Your task to perform on an android device: turn off location history Image 0: 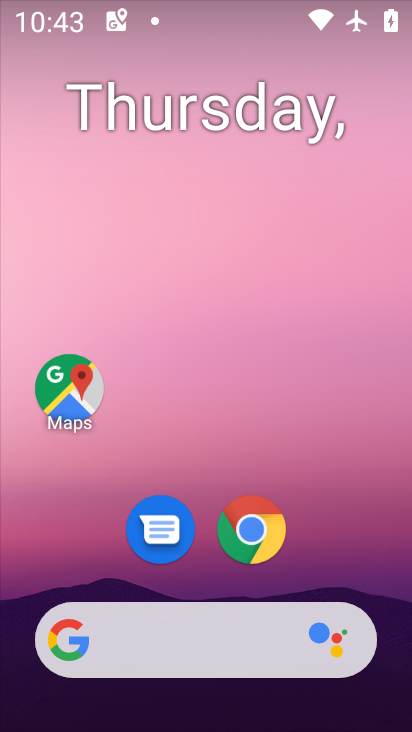
Step 0: drag from (326, 561) to (119, 0)
Your task to perform on an android device: turn off location history Image 1: 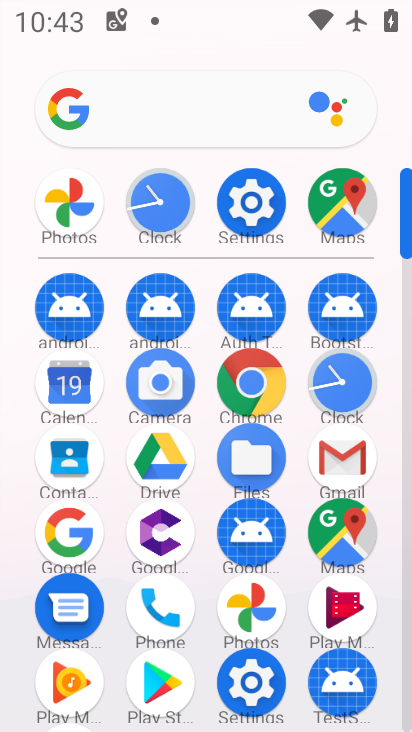
Step 1: click (262, 695)
Your task to perform on an android device: turn off location history Image 2: 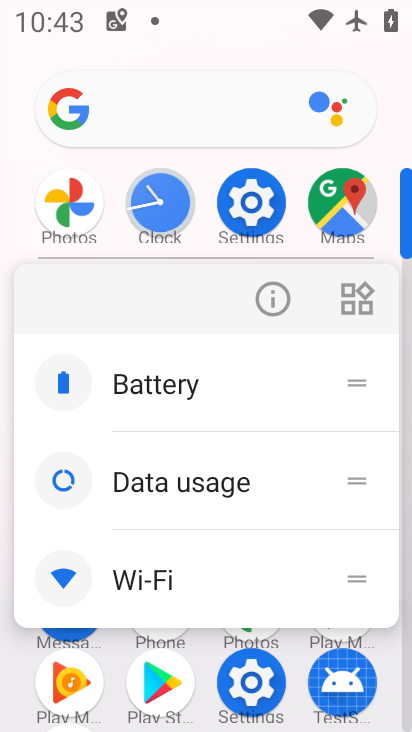
Step 2: click (250, 682)
Your task to perform on an android device: turn off location history Image 3: 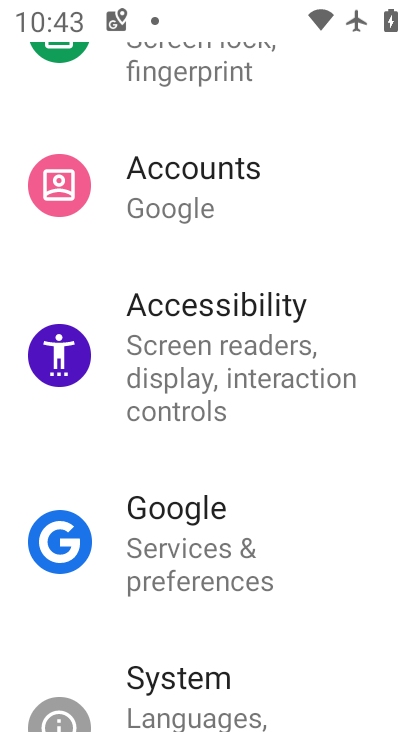
Step 3: drag from (196, 318) to (211, 471)
Your task to perform on an android device: turn off location history Image 4: 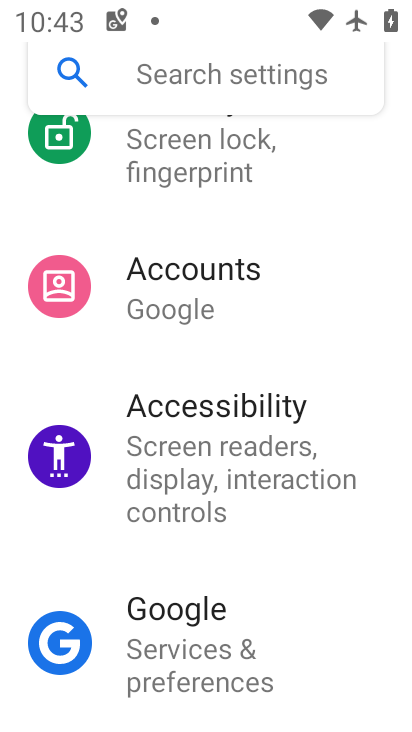
Step 4: drag from (171, 344) to (153, 574)
Your task to perform on an android device: turn off location history Image 5: 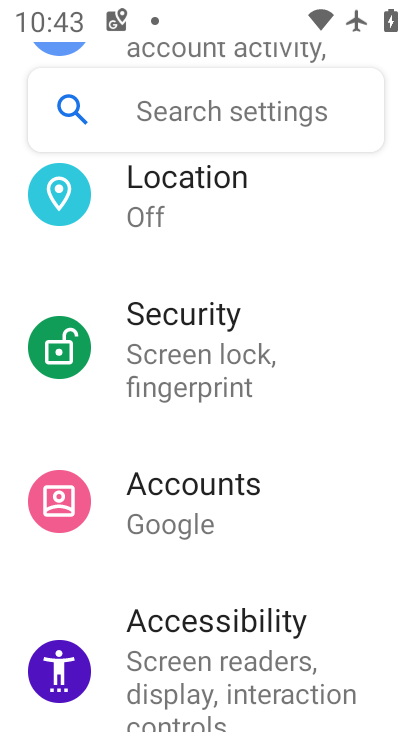
Step 5: click (148, 210)
Your task to perform on an android device: turn off location history Image 6: 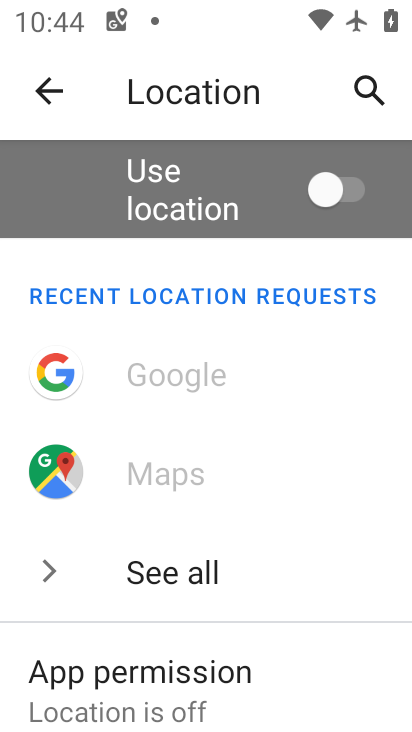
Step 6: task complete